Your task to perform on an android device: Show me popular games on the Play Store Image 0: 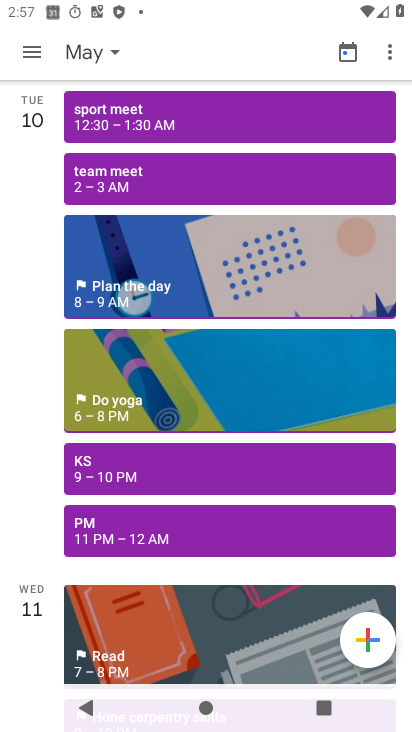
Step 0: drag from (262, 586) to (392, 560)
Your task to perform on an android device: Show me popular games on the Play Store Image 1: 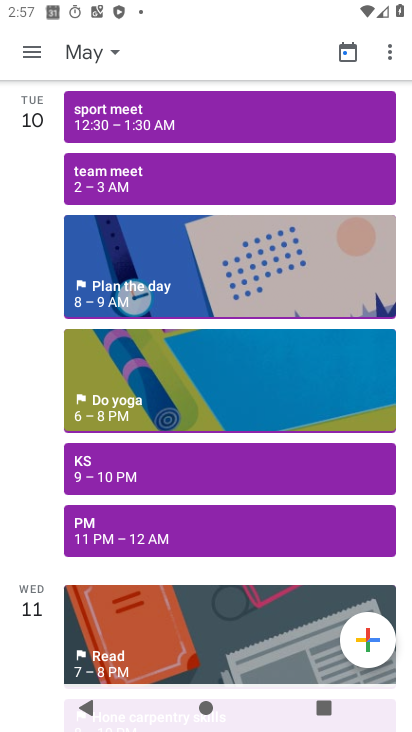
Step 1: press home button
Your task to perform on an android device: Show me popular games on the Play Store Image 2: 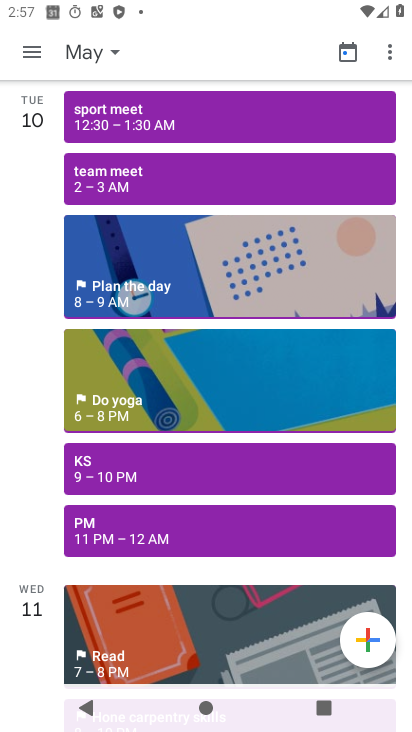
Step 2: drag from (392, 560) to (402, 477)
Your task to perform on an android device: Show me popular games on the Play Store Image 3: 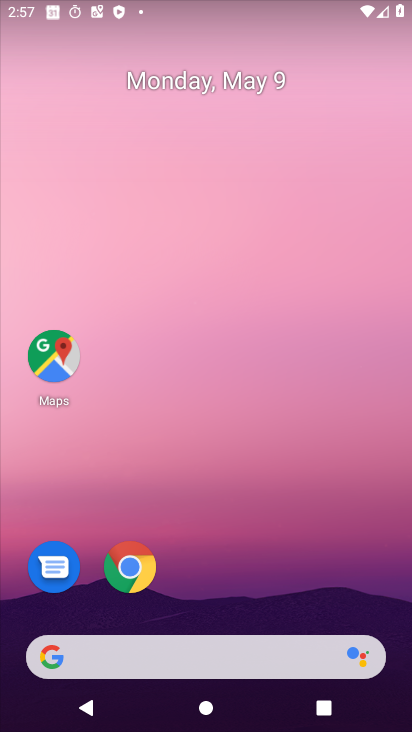
Step 3: drag from (243, 572) to (251, 28)
Your task to perform on an android device: Show me popular games on the Play Store Image 4: 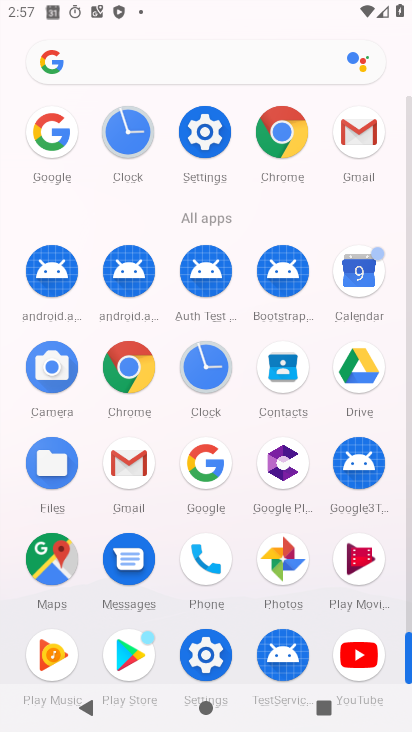
Step 4: click (113, 668)
Your task to perform on an android device: Show me popular games on the Play Store Image 5: 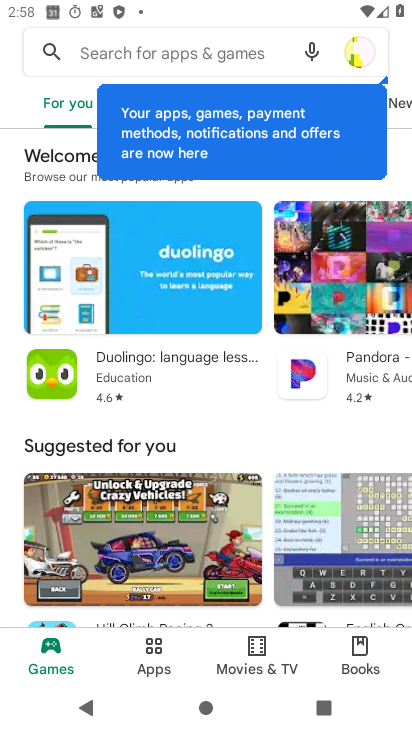
Step 5: click (164, 56)
Your task to perform on an android device: Show me popular games on the Play Store Image 6: 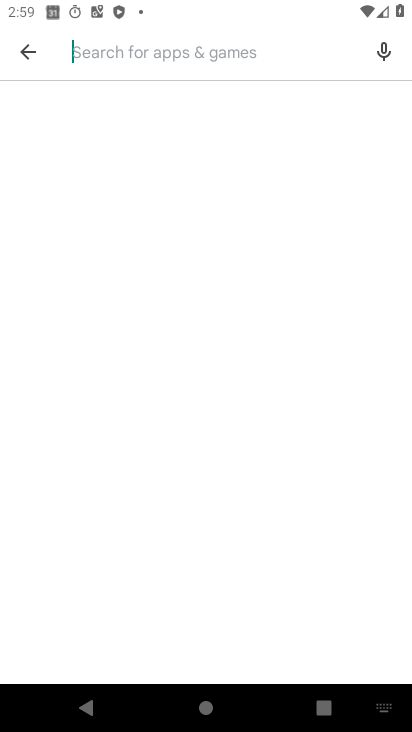
Step 6: type "popular games"
Your task to perform on an android device: Show me popular games on the Play Store Image 7: 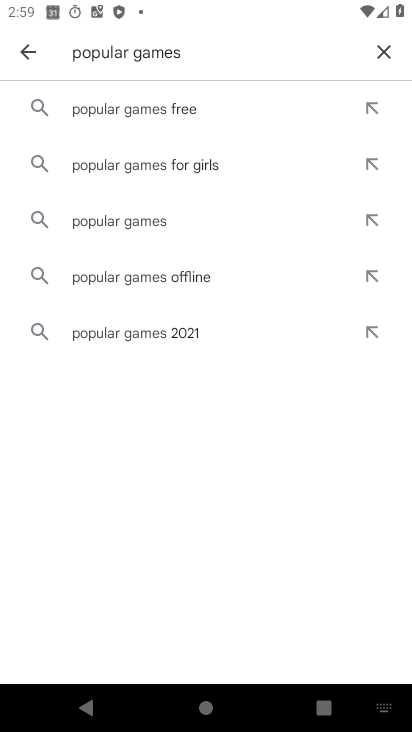
Step 7: click (117, 226)
Your task to perform on an android device: Show me popular games on the Play Store Image 8: 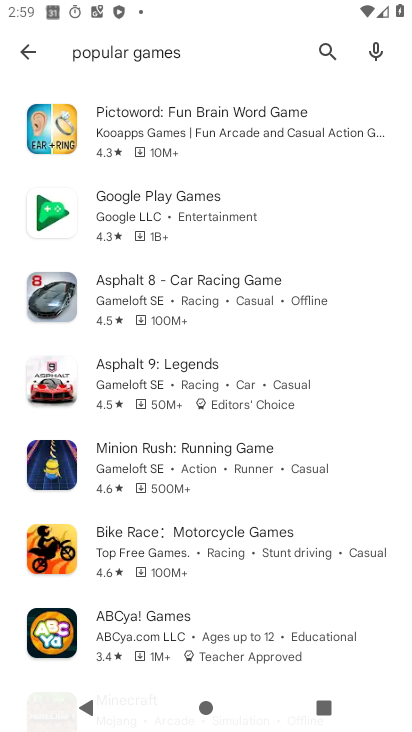
Step 8: task complete